Your task to perform on an android device: open chrome privacy settings Image 0: 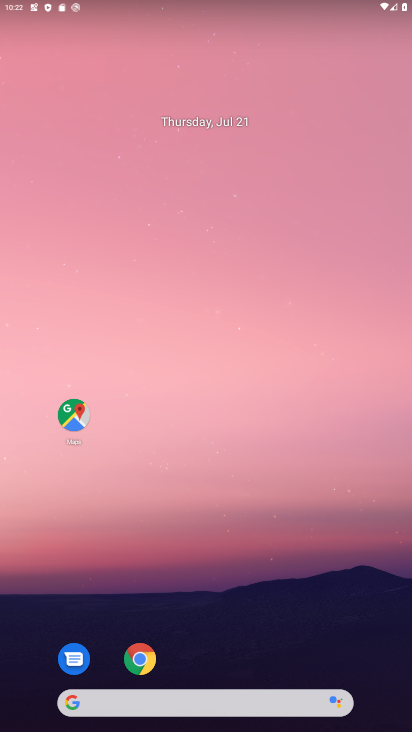
Step 0: drag from (266, 626) to (238, 89)
Your task to perform on an android device: open chrome privacy settings Image 1: 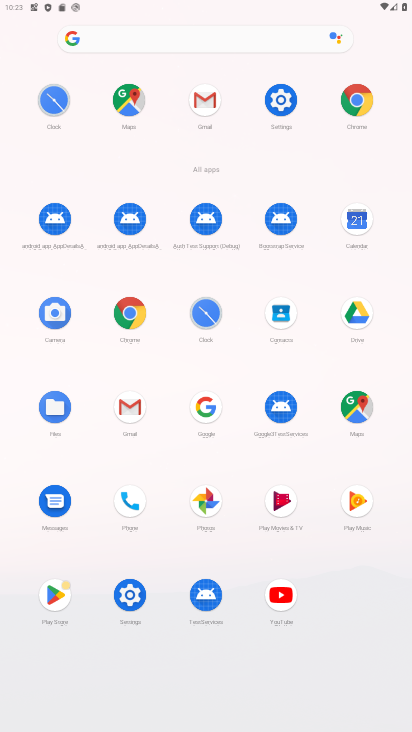
Step 1: click (283, 96)
Your task to perform on an android device: open chrome privacy settings Image 2: 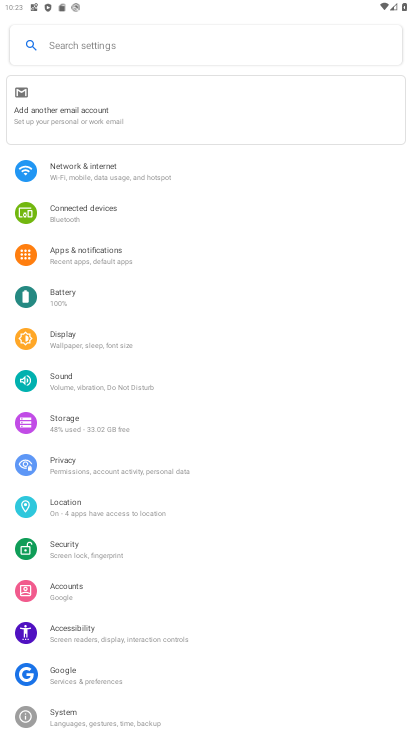
Step 2: click (111, 465)
Your task to perform on an android device: open chrome privacy settings Image 3: 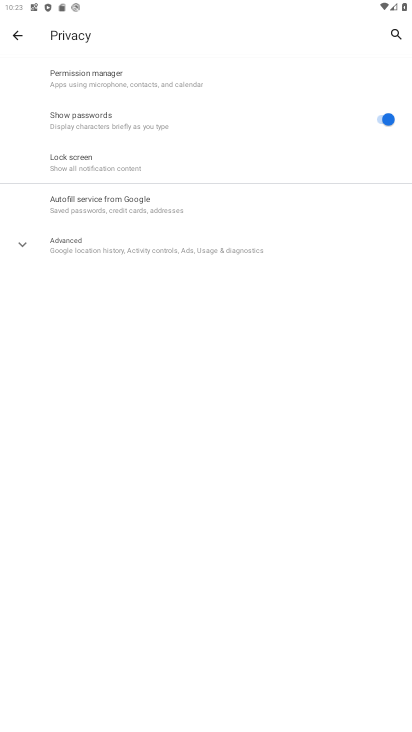
Step 3: task complete